Your task to perform on an android device: Check the news Image 0: 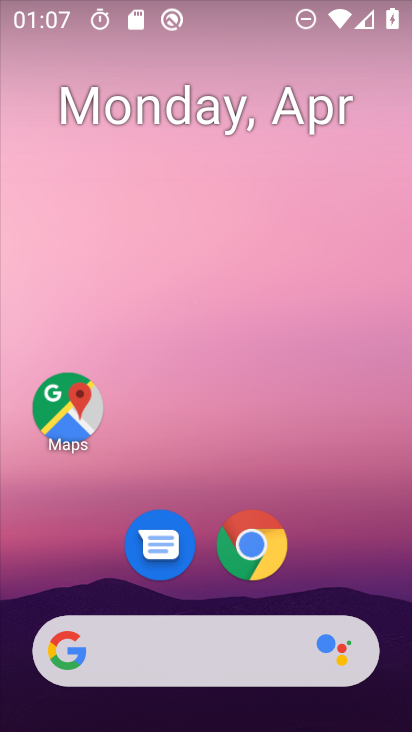
Step 0: drag from (320, 575) to (337, 264)
Your task to perform on an android device: Check the news Image 1: 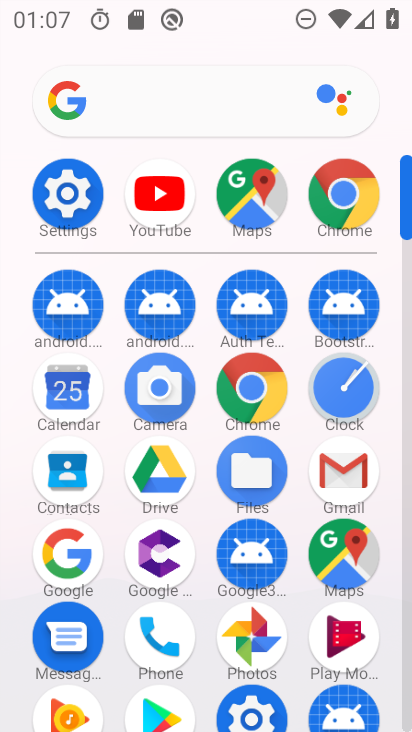
Step 1: click (337, 184)
Your task to perform on an android device: Check the news Image 2: 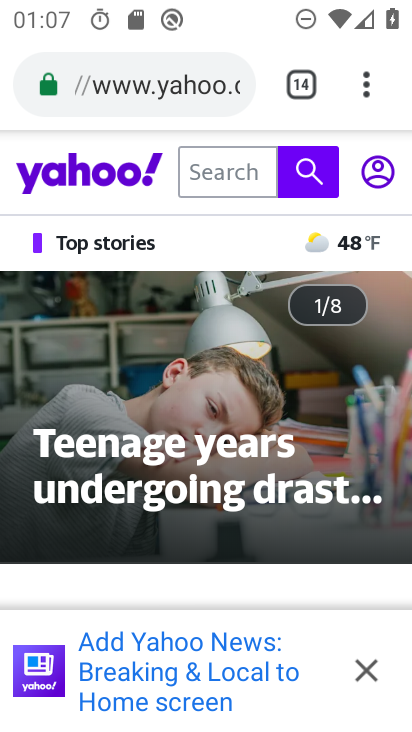
Step 2: click (358, 83)
Your task to perform on an android device: Check the news Image 3: 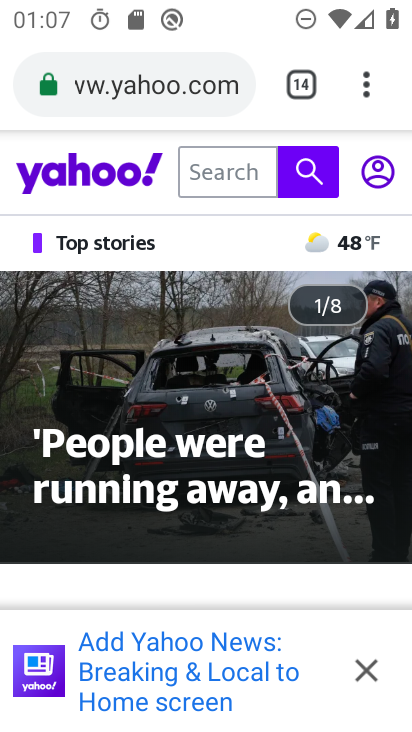
Step 3: click (356, 90)
Your task to perform on an android device: Check the news Image 4: 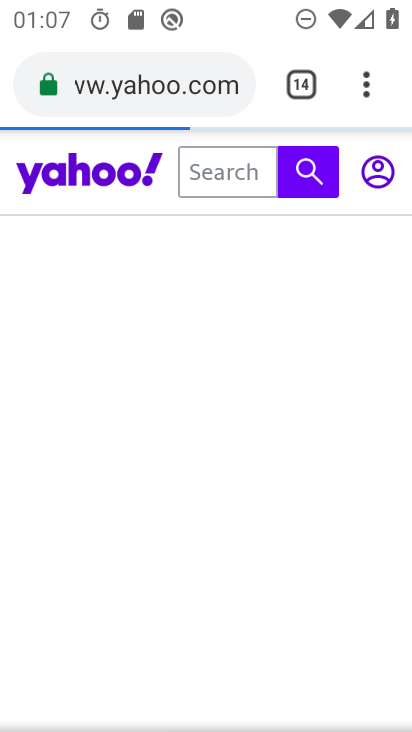
Step 4: click (352, 71)
Your task to perform on an android device: Check the news Image 5: 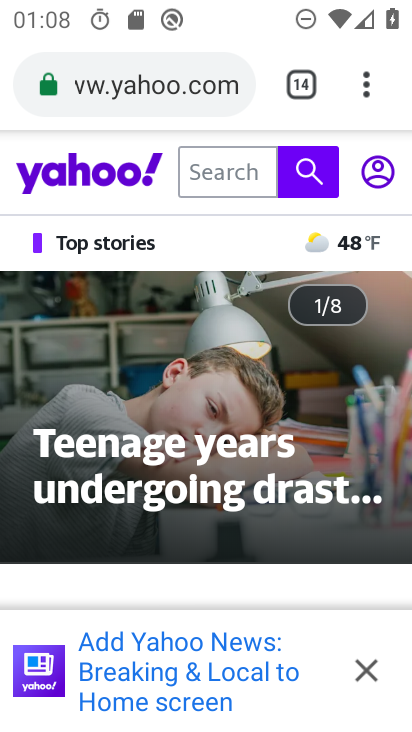
Step 5: click (352, 84)
Your task to perform on an android device: Check the news Image 6: 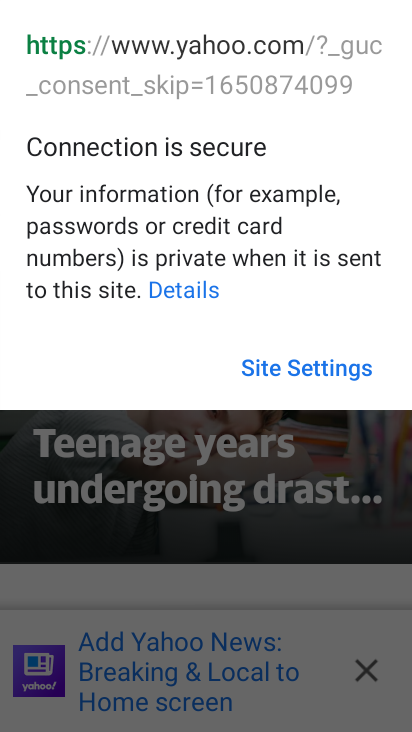
Step 6: press back button
Your task to perform on an android device: Check the news Image 7: 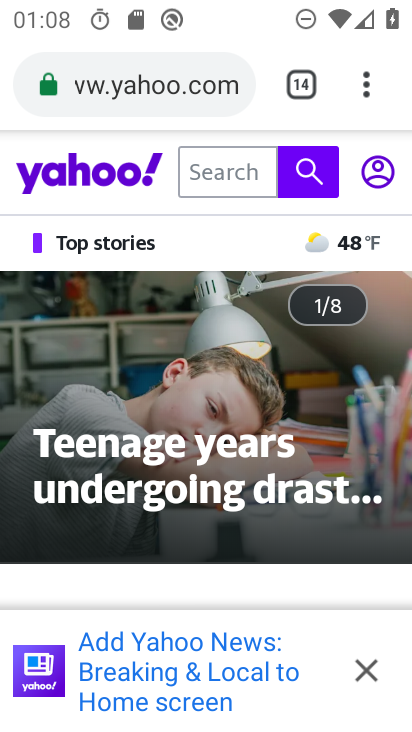
Step 7: click (343, 87)
Your task to perform on an android device: Check the news Image 8: 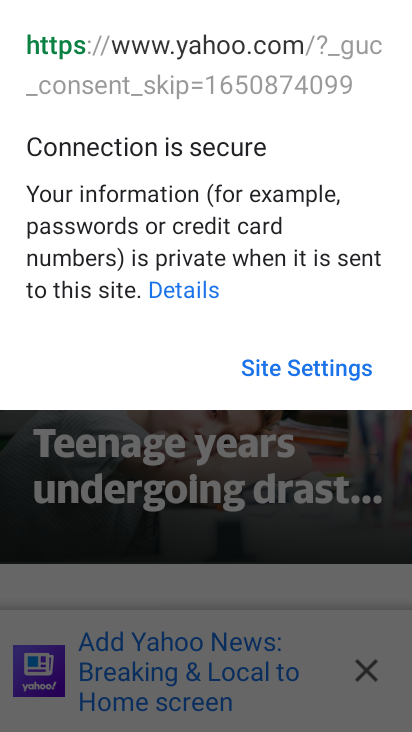
Step 8: press back button
Your task to perform on an android device: Check the news Image 9: 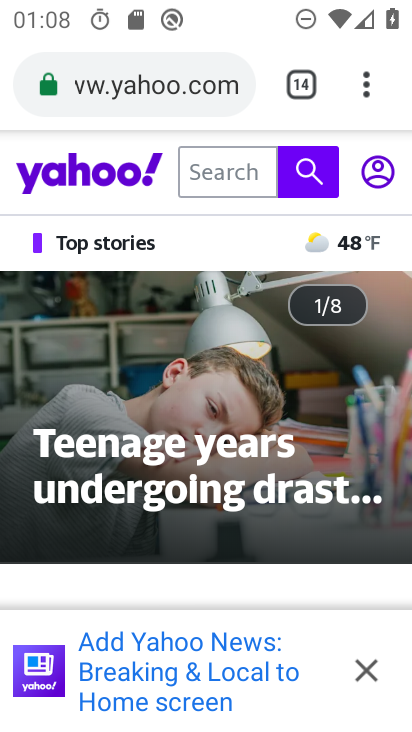
Step 9: click (365, 76)
Your task to perform on an android device: Check the news Image 10: 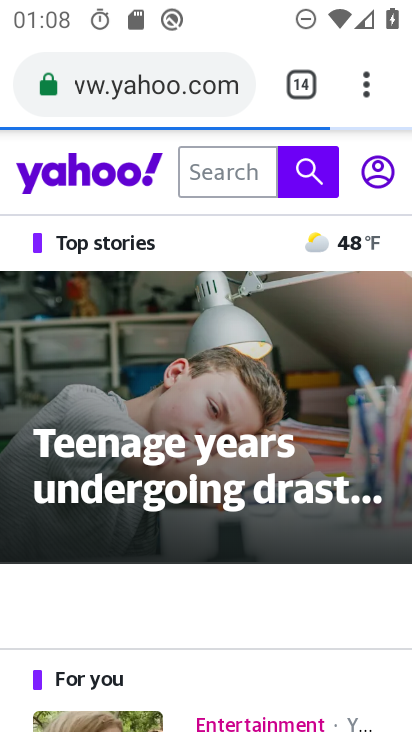
Step 10: click (350, 75)
Your task to perform on an android device: Check the news Image 11: 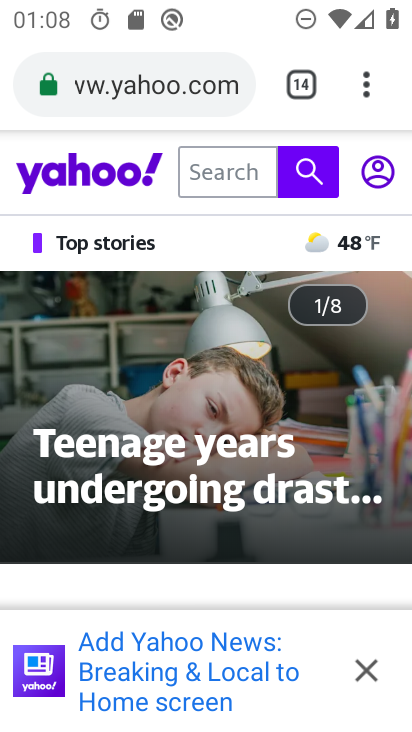
Step 11: click (352, 80)
Your task to perform on an android device: Check the news Image 12: 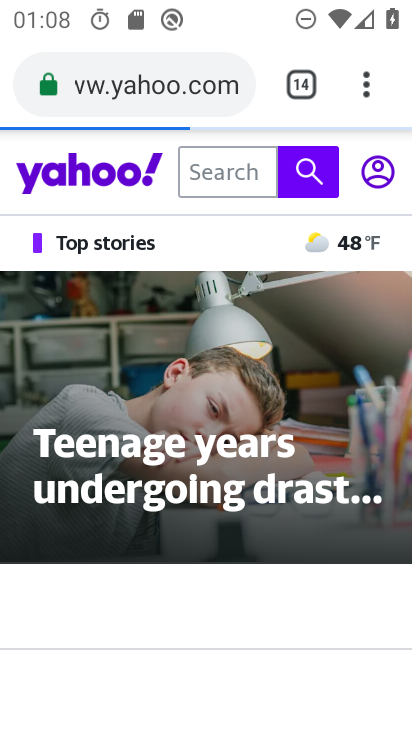
Step 12: click (352, 80)
Your task to perform on an android device: Check the news Image 13: 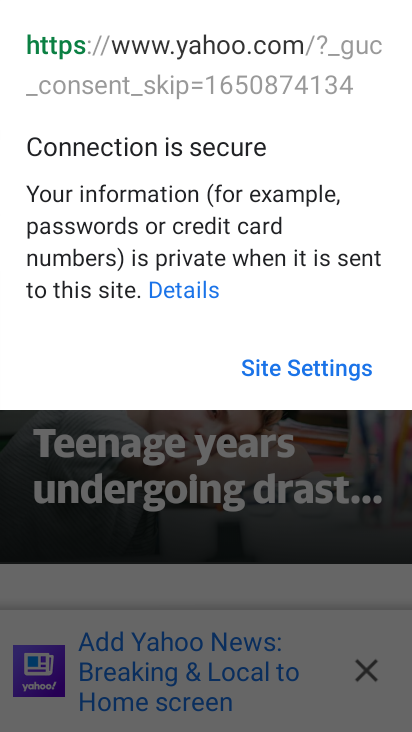
Step 13: press back button
Your task to perform on an android device: Check the news Image 14: 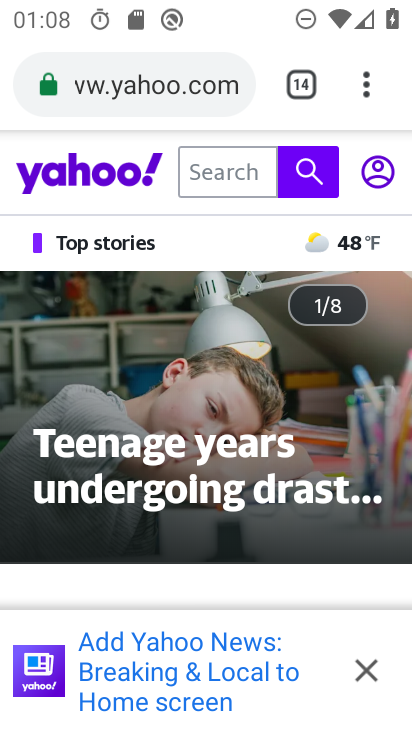
Step 14: click (338, 94)
Your task to perform on an android device: Check the news Image 15: 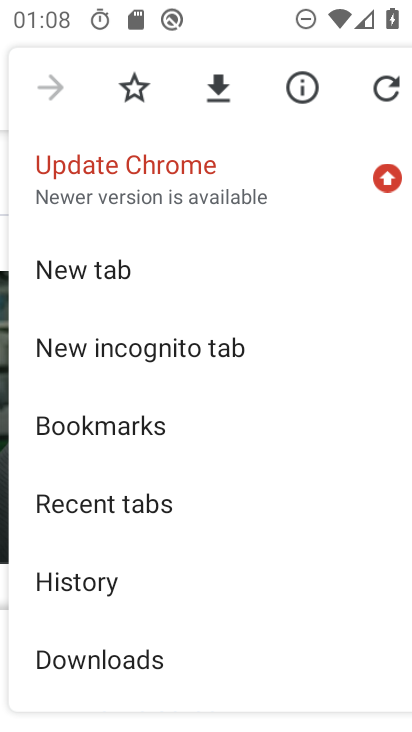
Step 15: click (123, 271)
Your task to perform on an android device: Check the news Image 16: 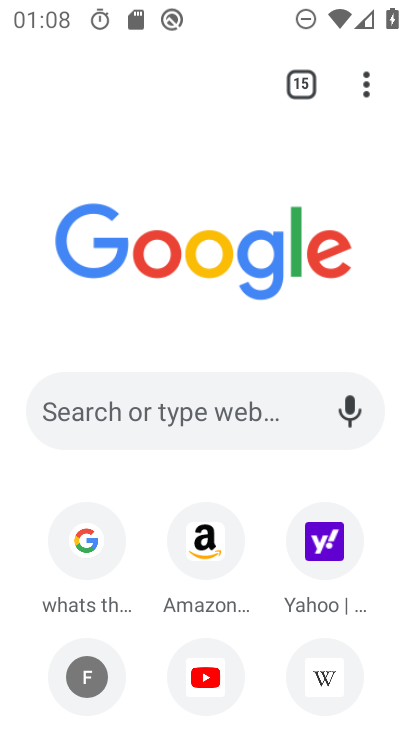
Step 16: click (229, 391)
Your task to perform on an android device: Check the news Image 17: 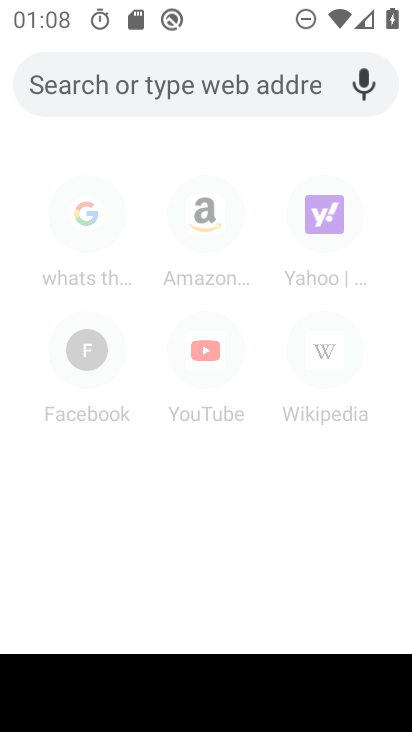
Step 17: type " news"
Your task to perform on an android device: Check the news Image 18: 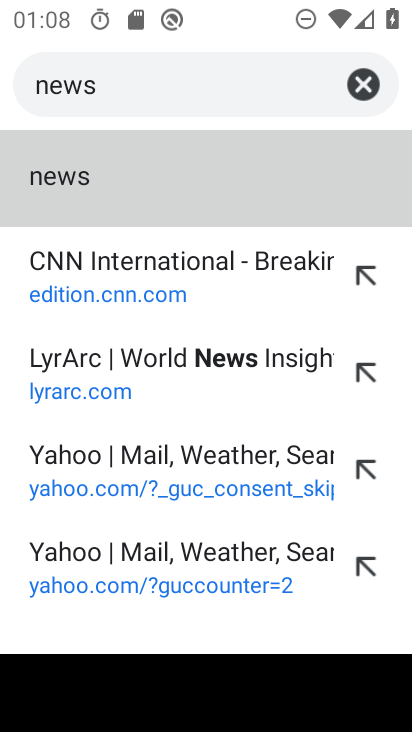
Step 18: click (158, 167)
Your task to perform on an android device: Check the news Image 19: 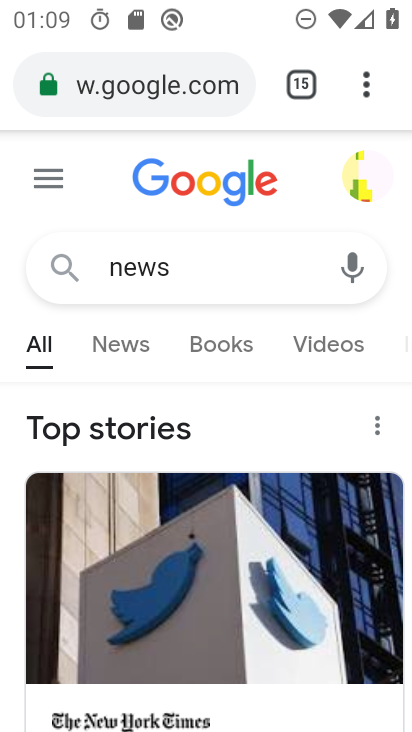
Step 19: task complete